Your task to perform on an android device: Search for Mexican restaurants on Maps Image 0: 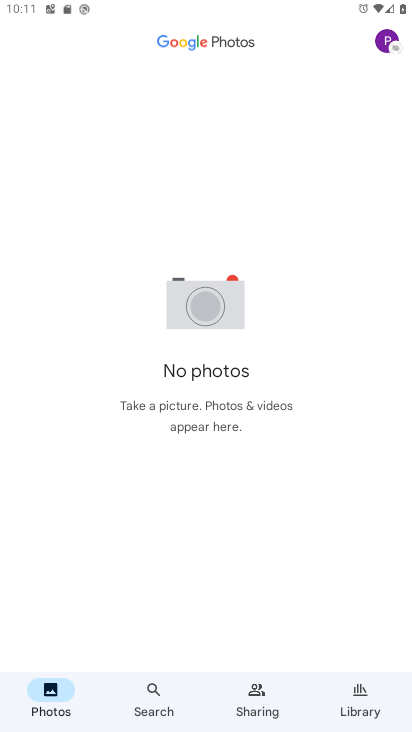
Step 0: press home button
Your task to perform on an android device: Search for Mexican restaurants on Maps Image 1: 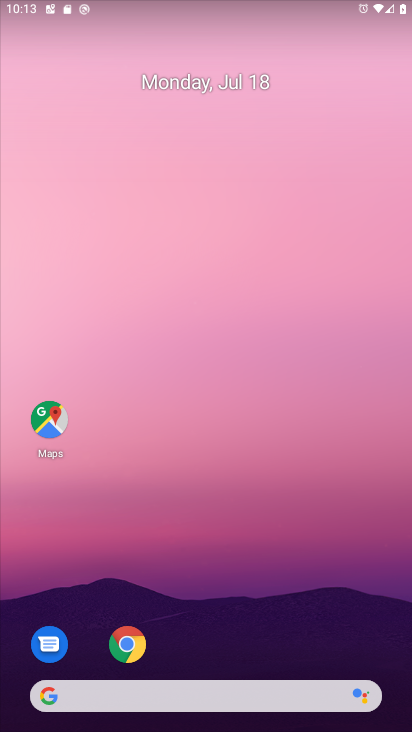
Step 1: click (35, 439)
Your task to perform on an android device: Search for Mexican restaurants on Maps Image 2: 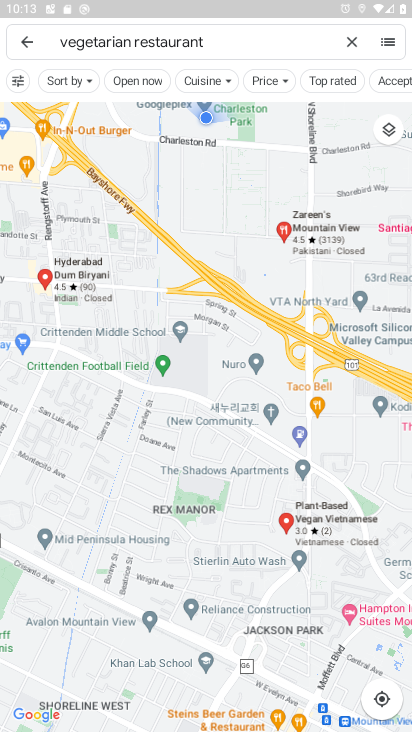
Step 2: click (348, 53)
Your task to perform on an android device: Search for Mexican restaurants on Maps Image 3: 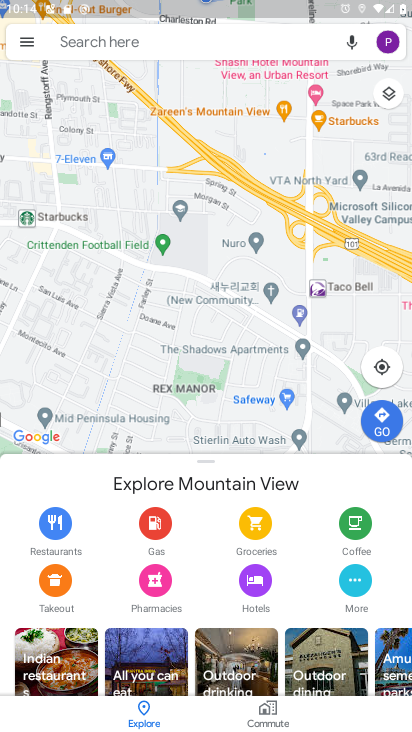
Step 3: click (221, 52)
Your task to perform on an android device: Search for Mexican restaurants on Maps Image 4: 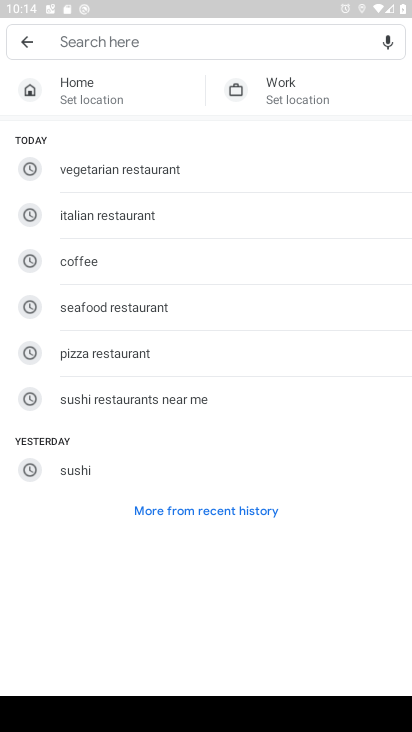
Step 4: type "mexican"
Your task to perform on an android device: Search for Mexican restaurants on Maps Image 5: 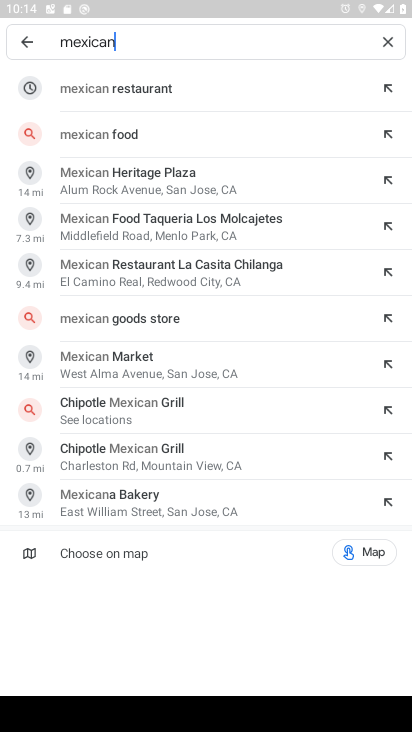
Step 5: click (279, 95)
Your task to perform on an android device: Search for Mexican restaurants on Maps Image 6: 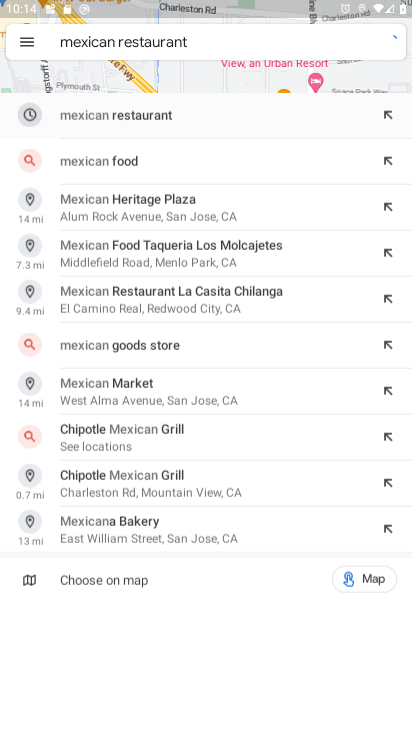
Step 6: task complete